Your task to perform on an android device: Show me popular games on the Play Store Image 0: 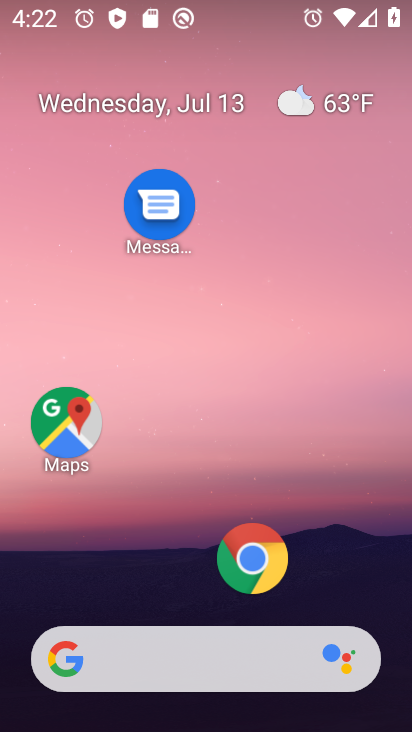
Step 0: drag from (157, 639) to (195, 124)
Your task to perform on an android device: Show me popular games on the Play Store Image 1: 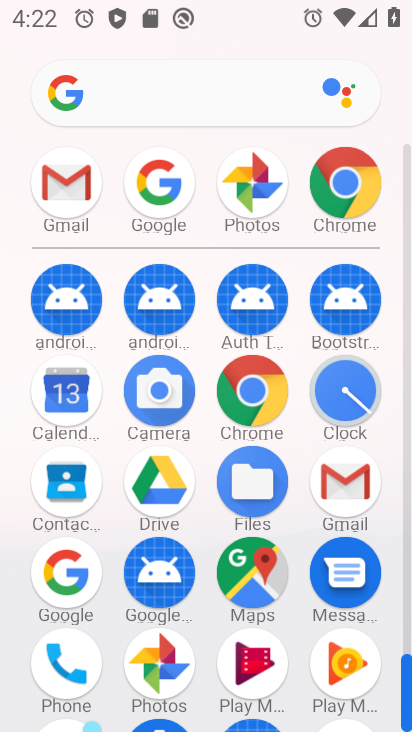
Step 1: drag from (212, 706) to (192, 393)
Your task to perform on an android device: Show me popular games on the Play Store Image 2: 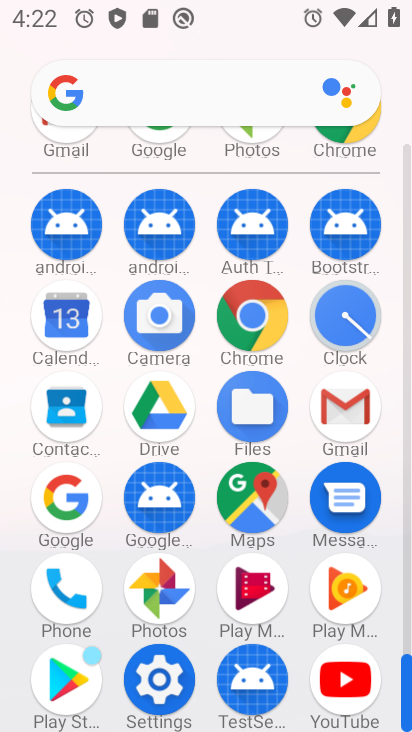
Step 2: click (67, 674)
Your task to perform on an android device: Show me popular games on the Play Store Image 3: 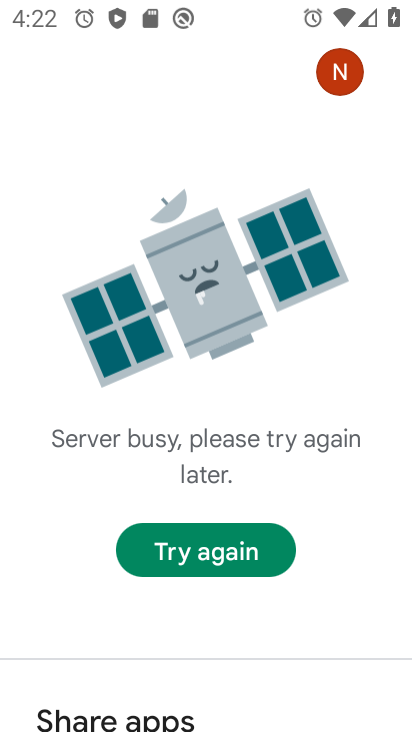
Step 3: task complete